Your task to perform on an android device: toggle sleep mode Image 0: 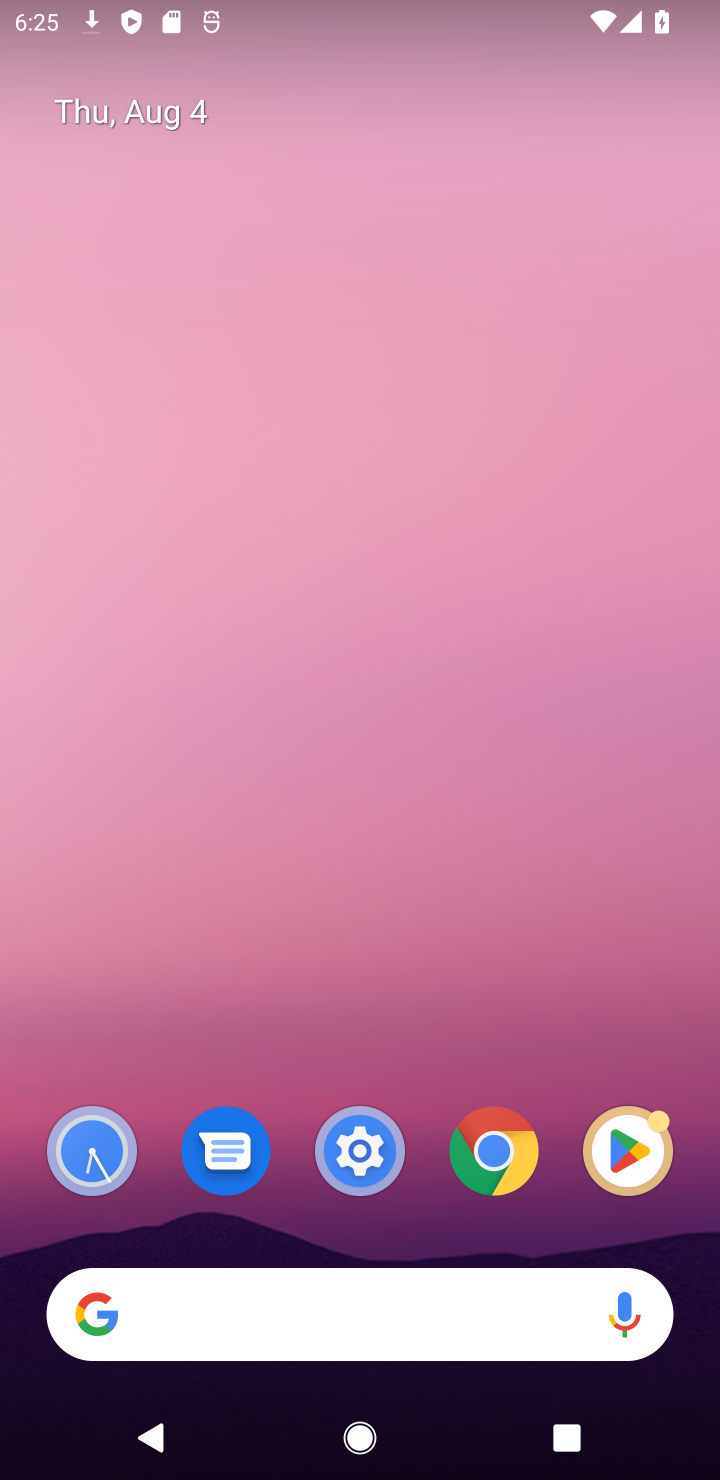
Step 0: drag from (287, 799) to (563, 597)
Your task to perform on an android device: toggle sleep mode Image 1: 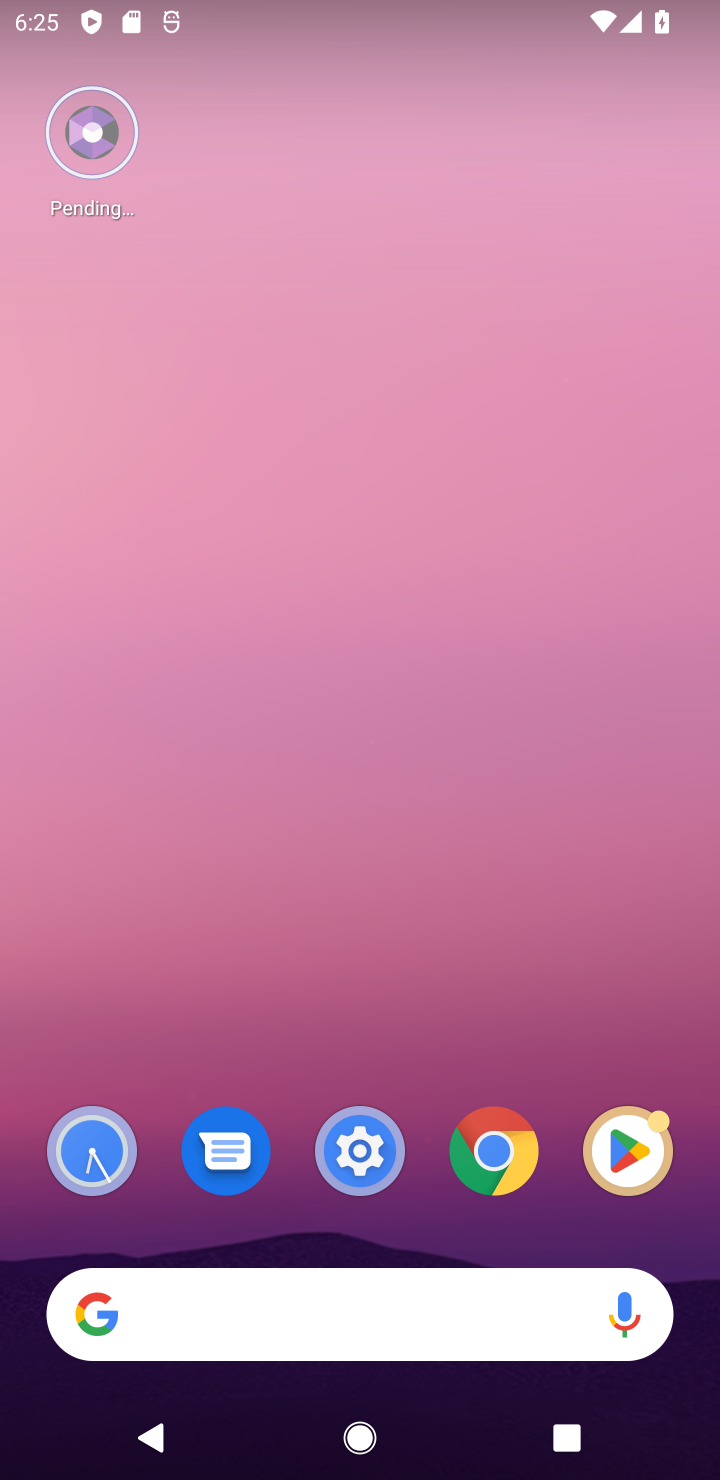
Step 1: drag from (343, 1257) to (274, 16)
Your task to perform on an android device: toggle sleep mode Image 2: 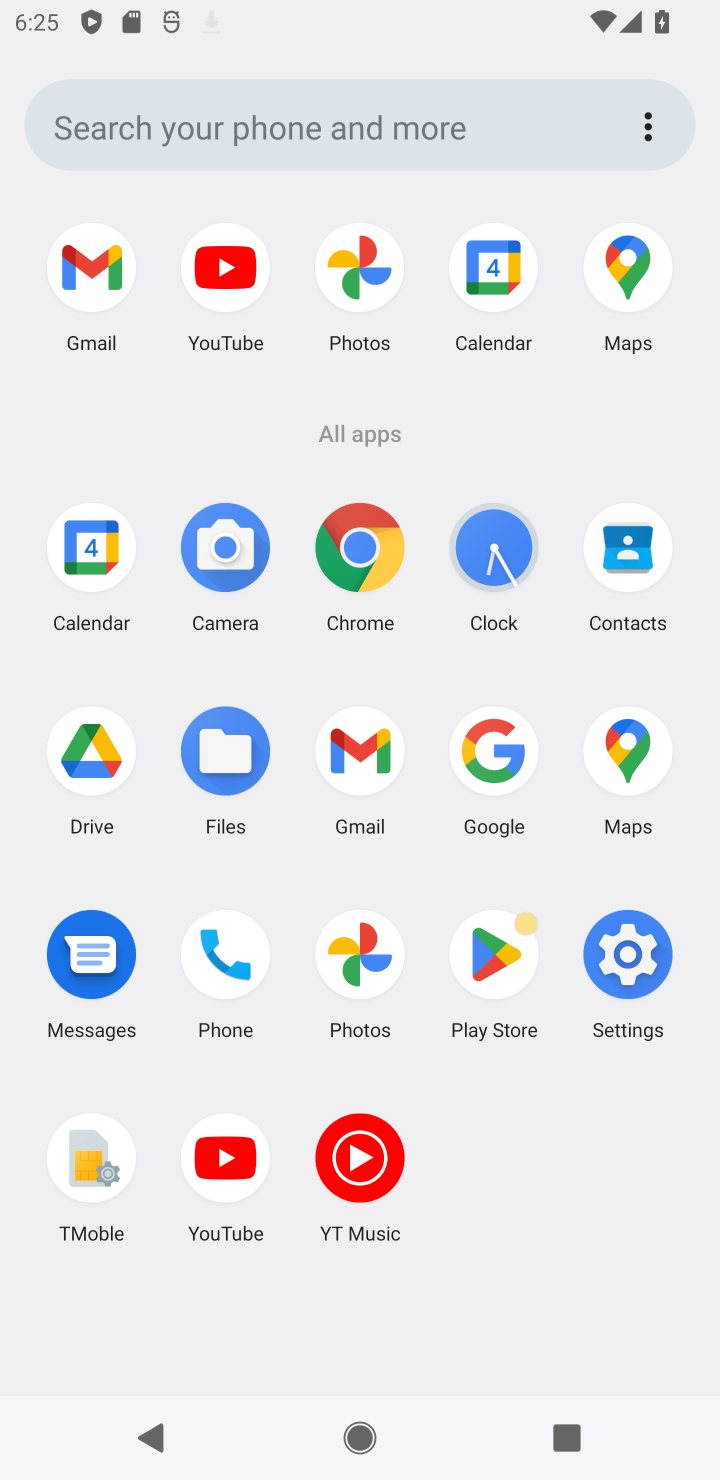
Step 2: click (631, 992)
Your task to perform on an android device: toggle sleep mode Image 3: 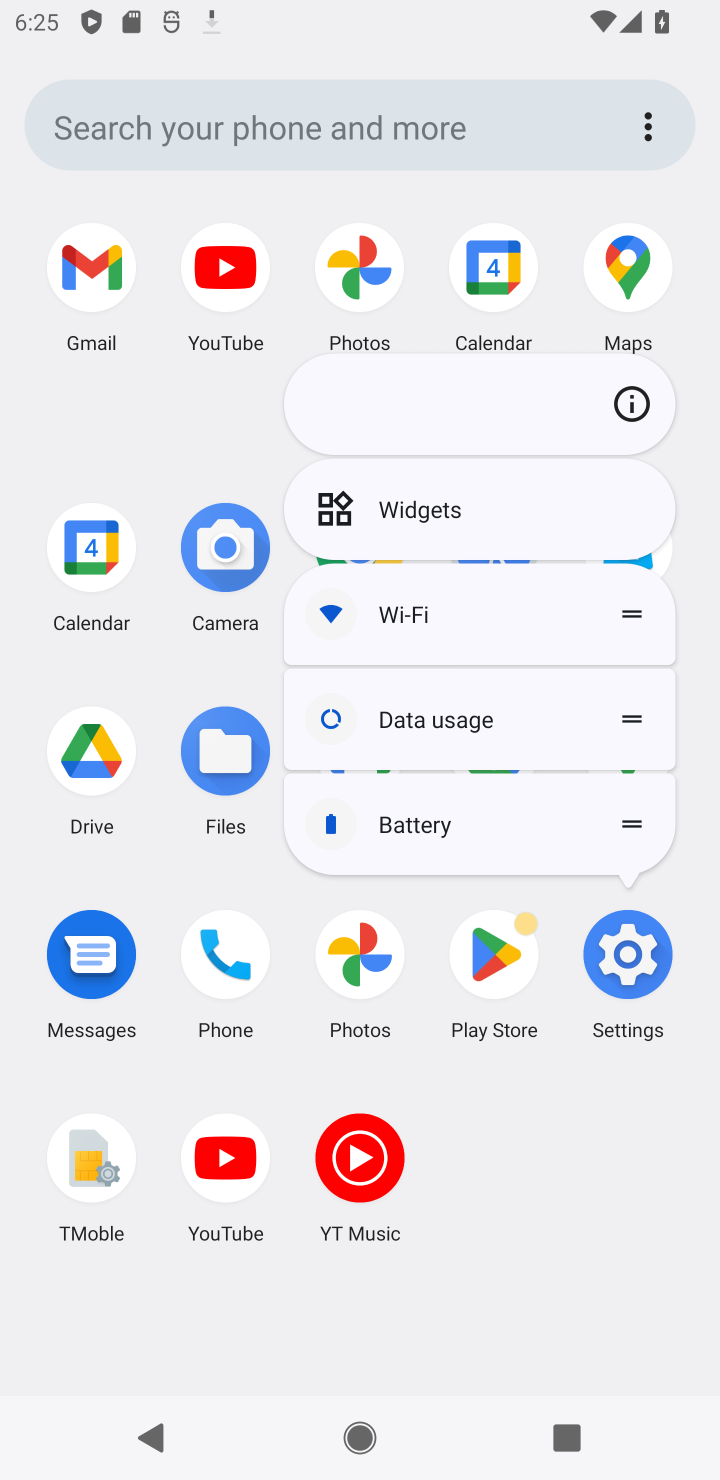
Step 3: click (617, 992)
Your task to perform on an android device: toggle sleep mode Image 4: 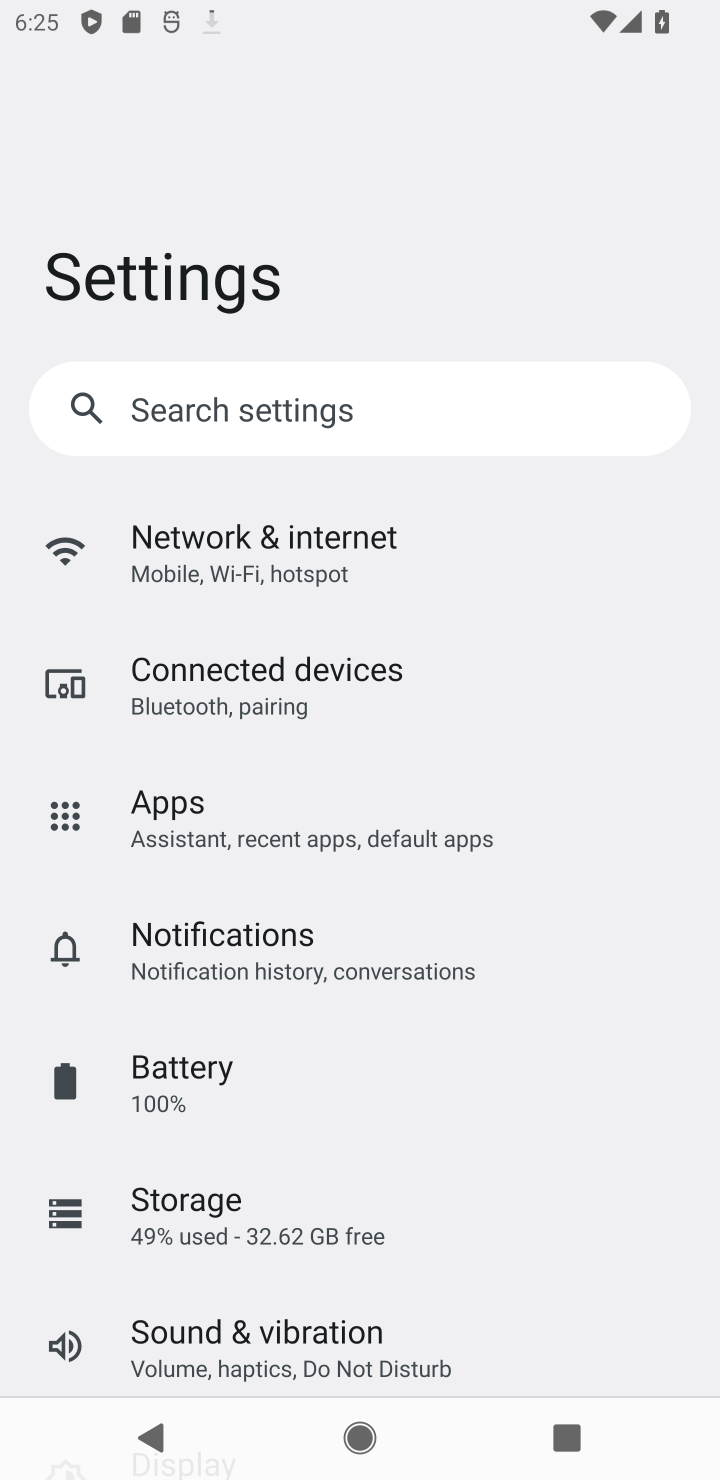
Step 4: click (464, 421)
Your task to perform on an android device: toggle sleep mode Image 5: 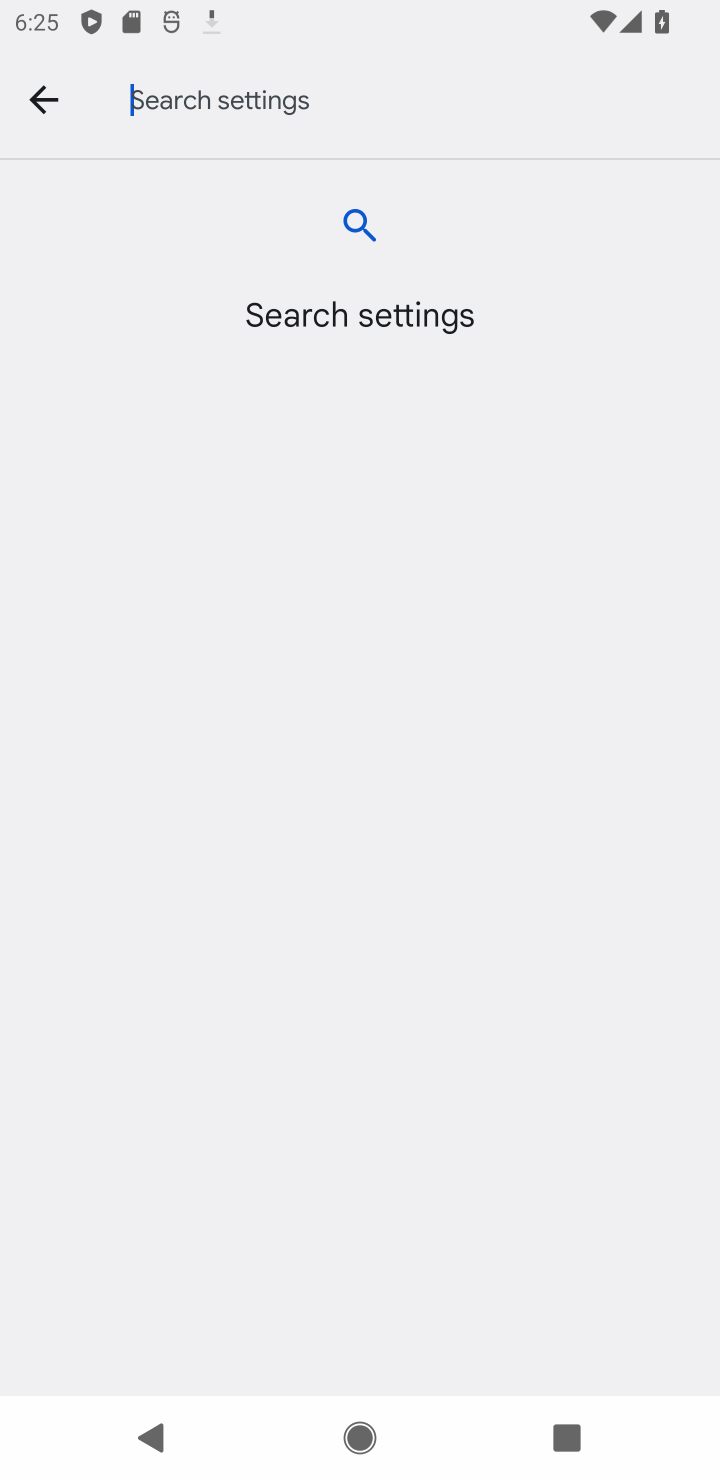
Step 5: type "sleep mode"
Your task to perform on an android device: toggle sleep mode Image 6: 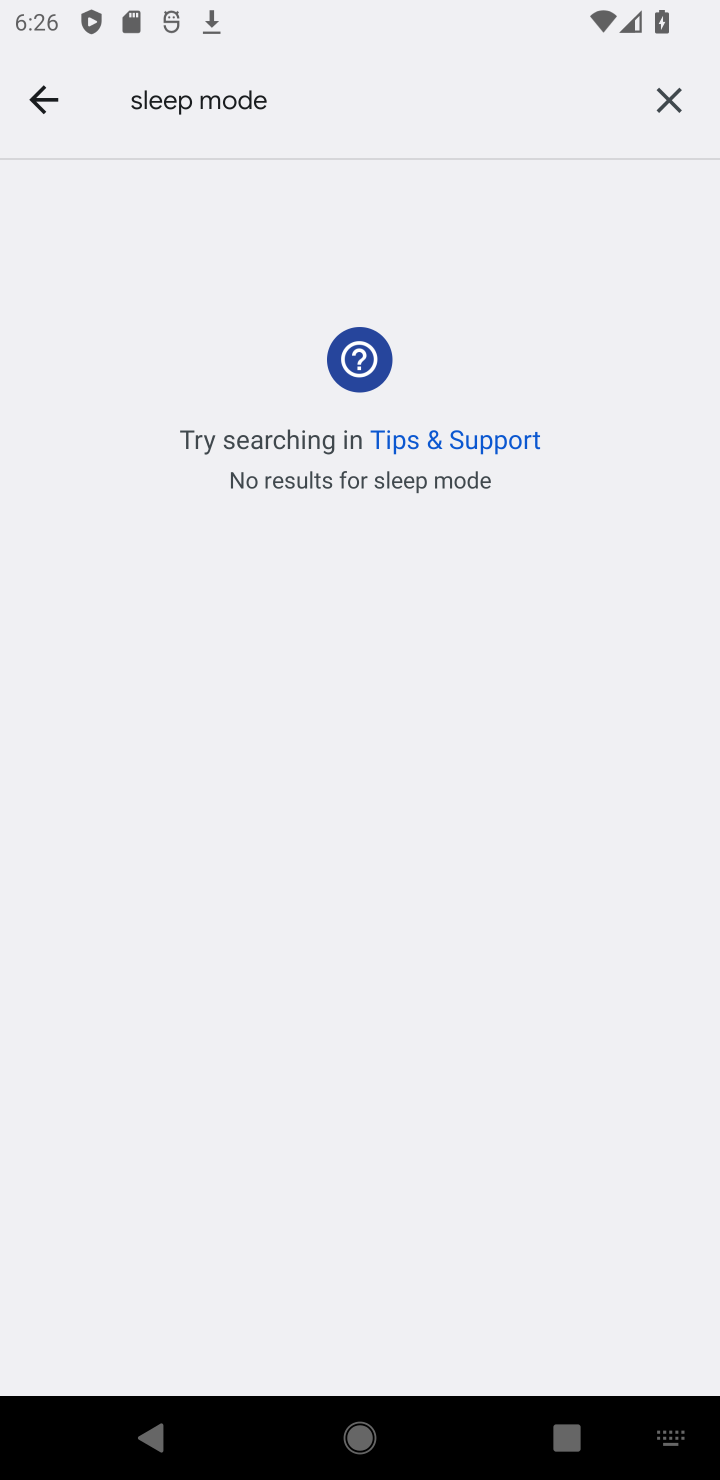
Step 6: task complete